Your task to perform on an android device: toggle data saver in the chrome app Image 0: 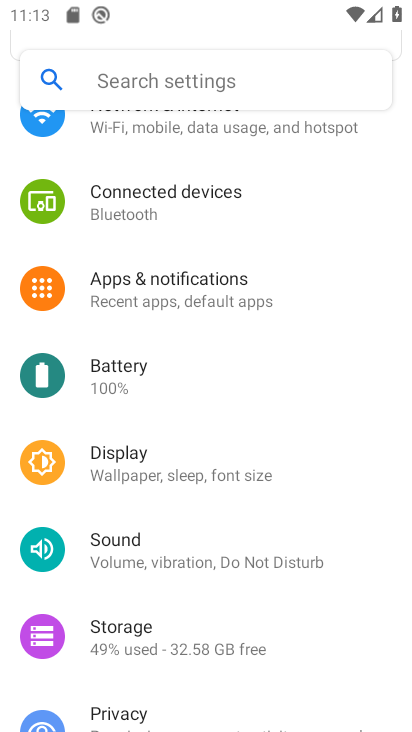
Step 0: press home button
Your task to perform on an android device: toggle data saver in the chrome app Image 1: 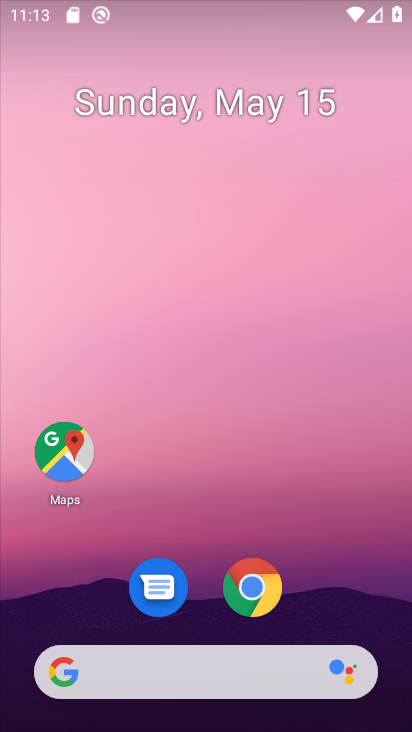
Step 1: click (251, 601)
Your task to perform on an android device: toggle data saver in the chrome app Image 2: 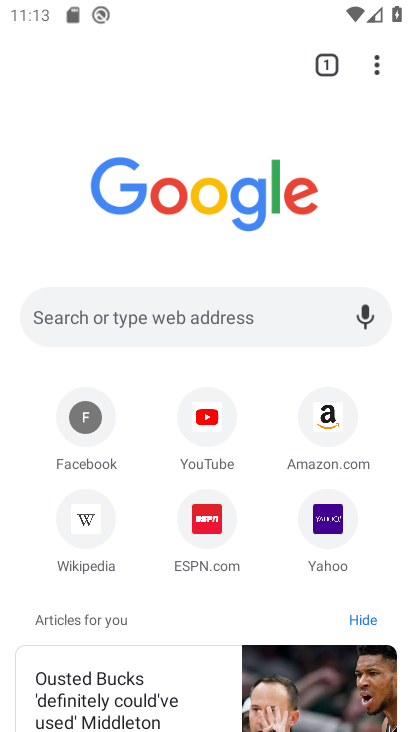
Step 2: drag from (371, 65) to (160, 549)
Your task to perform on an android device: toggle data saver in the chrome app Image 3: 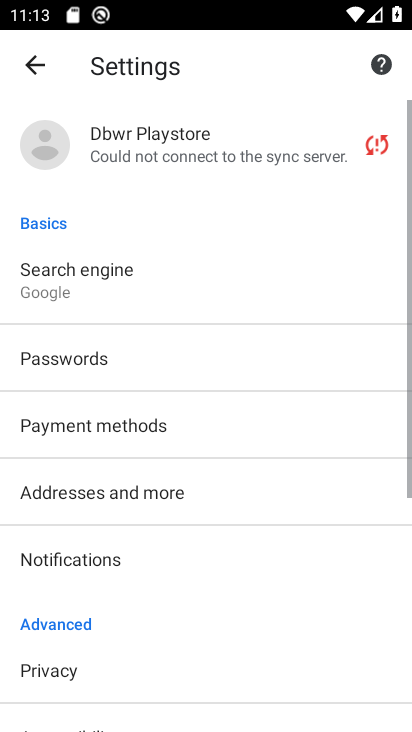
Step 3: drag from (151, 625) to (167, 317)
Your task to perform on an android device: toggle data saver in the chrome app Image 4: 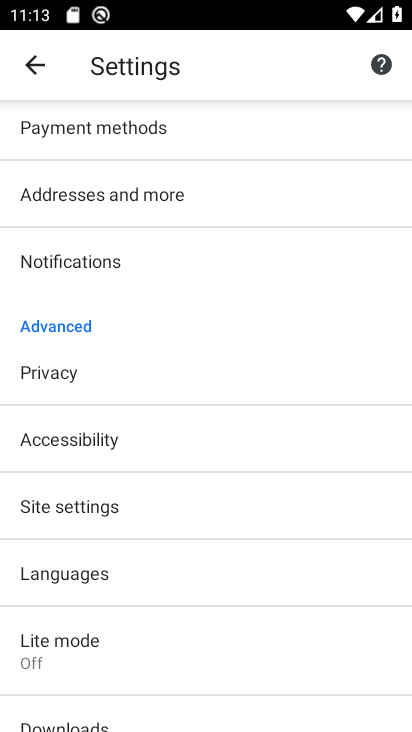
Step 4: click (92, 507)
Your task to perform on an android device: toggle data saver in the chrome app Image 5: 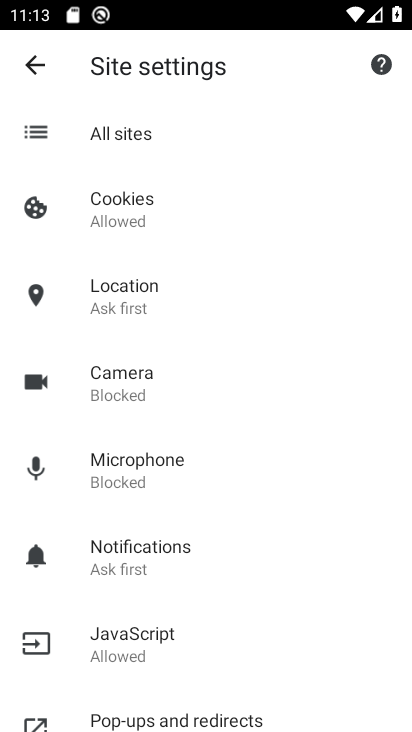
Step 5: drag from (181, 573) to (214, 387)
Your task to perform on an android device: toggle data saver in the chrome app Image 6: 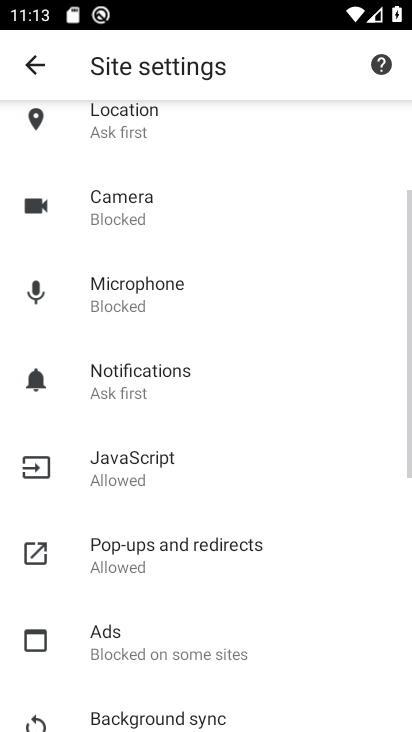
Step 6: click (164, 464)
Your task to perform on an android device: toggle data saver in the chrome app Image 7: 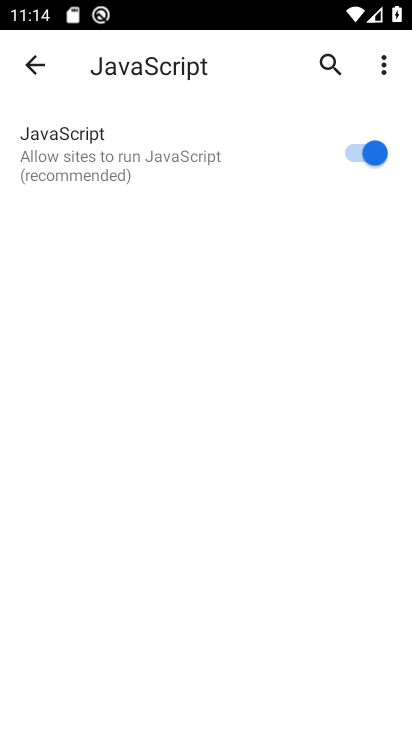
Step 7: press back button
Your task to perform on an android device: toggle data saver in the chrome app Image 8: 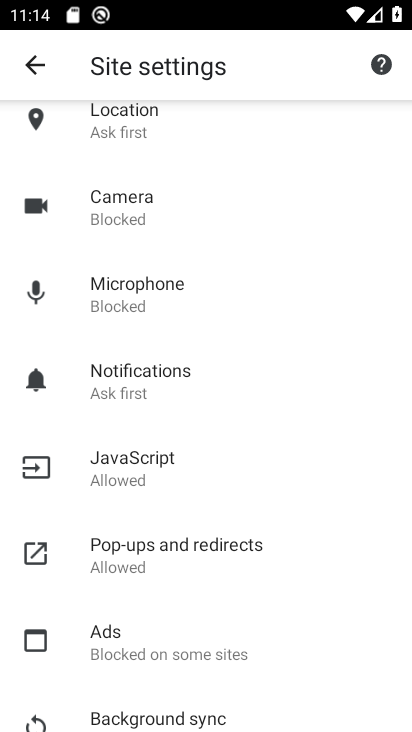
Step 8: drag from (233, 635) to (258, 437)
Your task to perform on an android device: toggle data saver in the chrome app Image 9: 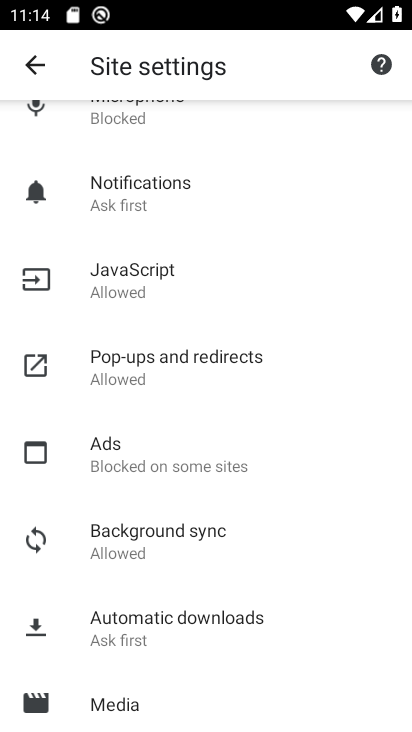
Step 9: drag from (185, 612) to (201, 530)
Your task to perform on an android device: toggle data saver in the chrome app Image 10: 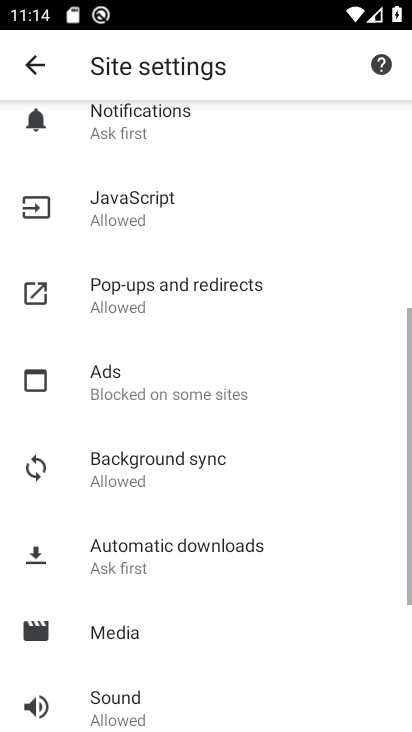
Step 10: drag from (170, 344) to (191, 533)
Your task to perform on an android device: toggle data saver in the chrome app Image 11: 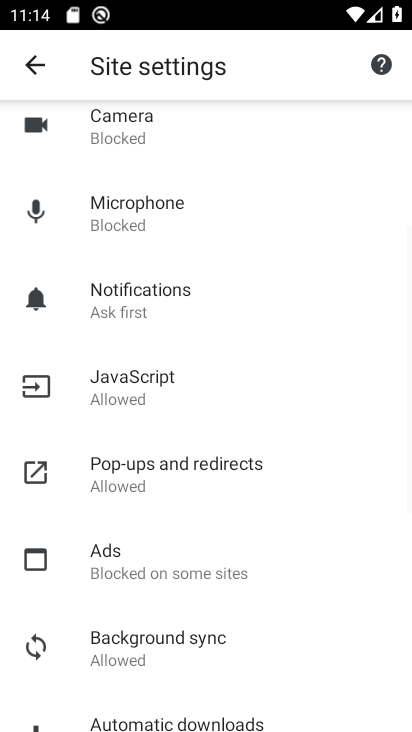
Step 11: drag from (214, 275) to (243, 525)
Your task to perform on an android device: toggle data saver in the chrome app Image 12: 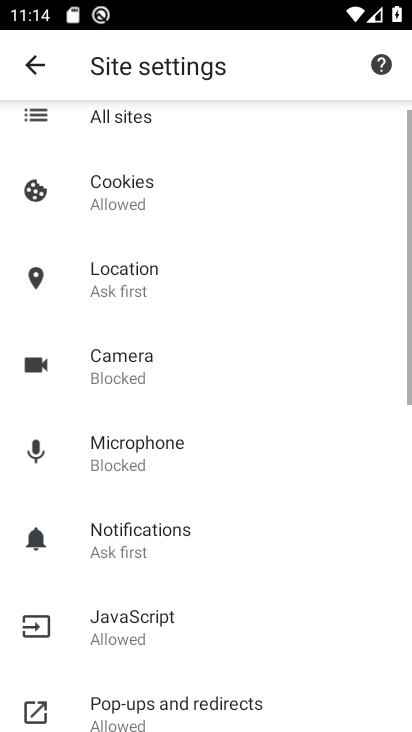
Step 12: drag from (216, 297) to (239, 504)
Your task to perform on an android device: toggle data saver in the chrome app Image 13: 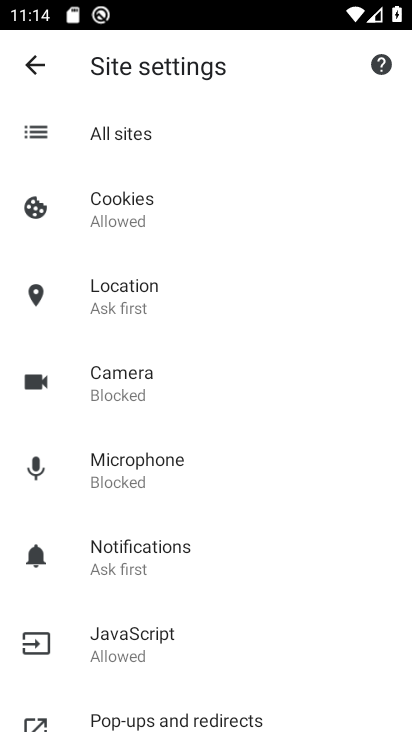
Step 13: drag from (216, 299) to (239, 444)
Your task to perform on an android device: toggle data saver in the chrome app Image 14: 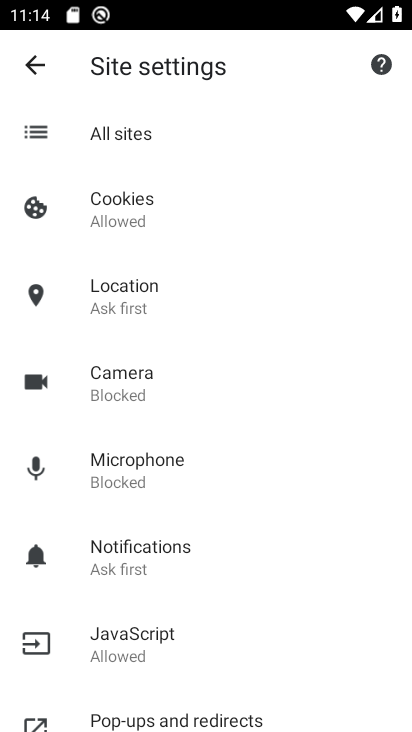
Step 14: drag from (194, 700) to (245, 470)
Your task to perform on an android device: toggle data saver in the chrome app Image 15: 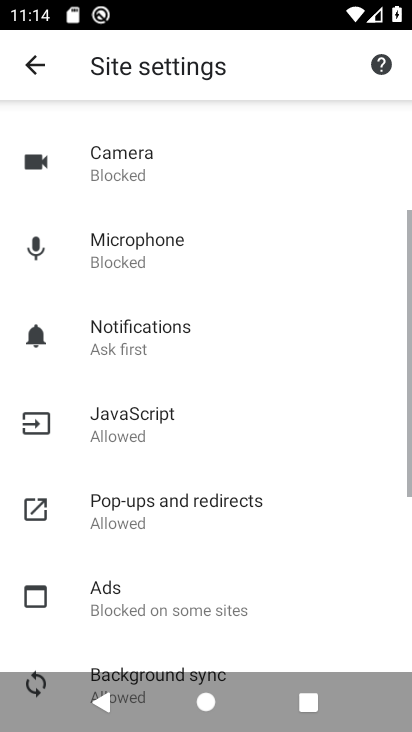
Step 15: drag from (218, 559) to (235, 423)
Your task to perform on an android device: toggle data saver in the chrome app Image 16: 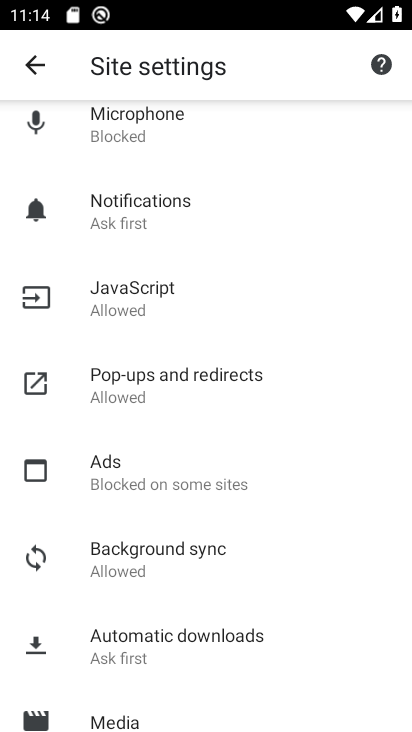
Step 16: drag from (200, 634) to (212, 227)
Your task to perform on an android device: toggle data saver in the chrome app Image 17: 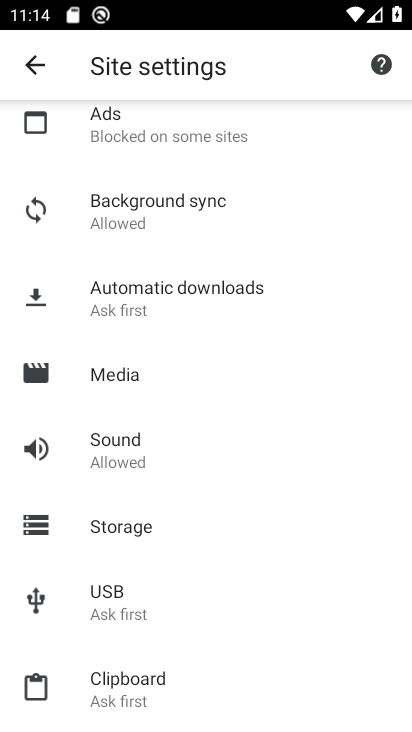
Step 17: click (28, 69)
Your task to perform on an android device: toggle data saver in the chrome app Image 18: 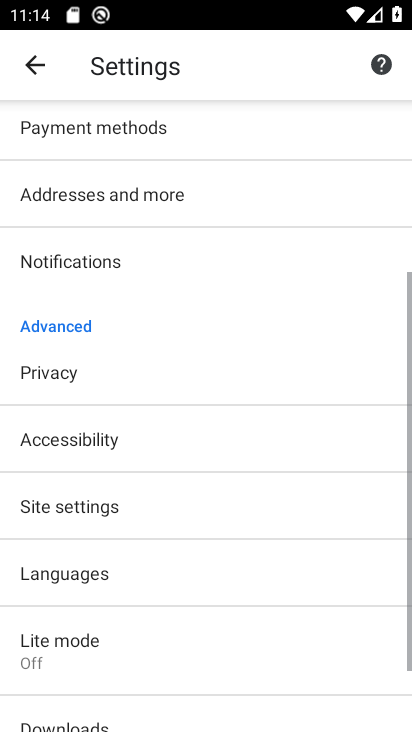
Step 18: drag from (127, 600) to (171, 334)
Your task to perform on an android device: toggle data saver in the chrome app Image 19: 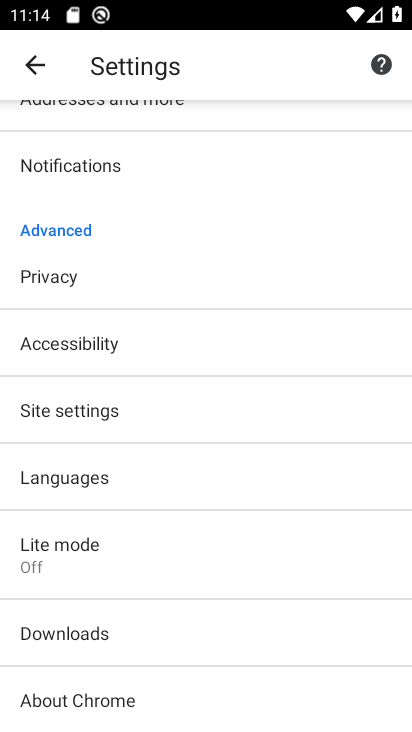
Step 19: click (89, 563)
Your task to perform on an android device: toggle data saver in the chrome app Image 20: 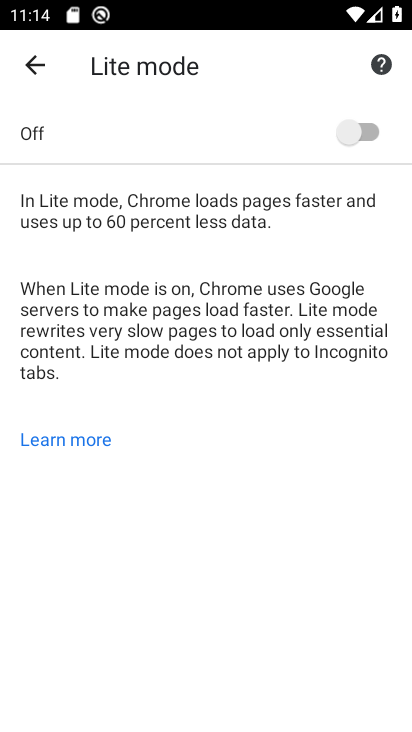
Step 20: click (369, 128)
Your task to perform on an android device: toggle data saver in the chrome app Image 21: 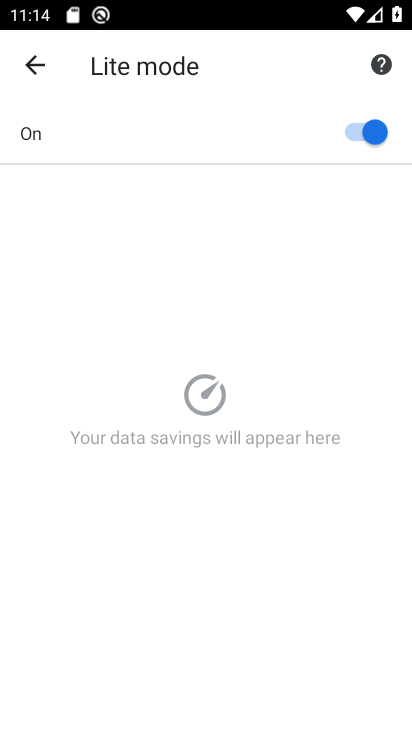
Step 21: task complete